Your task to perform on an android device: Open Google Chrome and click the shortcut for Amazon.com Image 0: 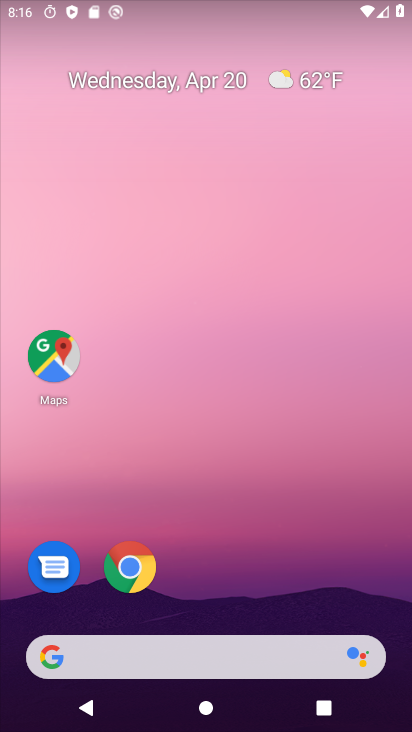
Step 0: click (138, 581)
Your task to perform on an android device: Open Google Chrome and click the shortcut for Amazon.com Image 1: 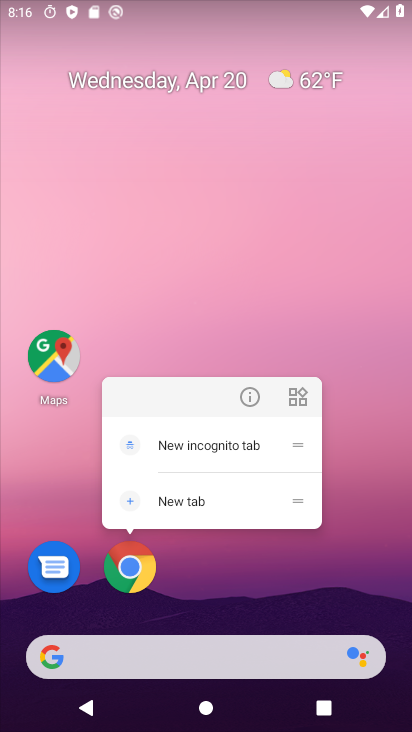
Step 1: click (138, 580)
Your task to perform on an android device: Open Google Chrome and click the shortcut for Amazon.com Image 2: 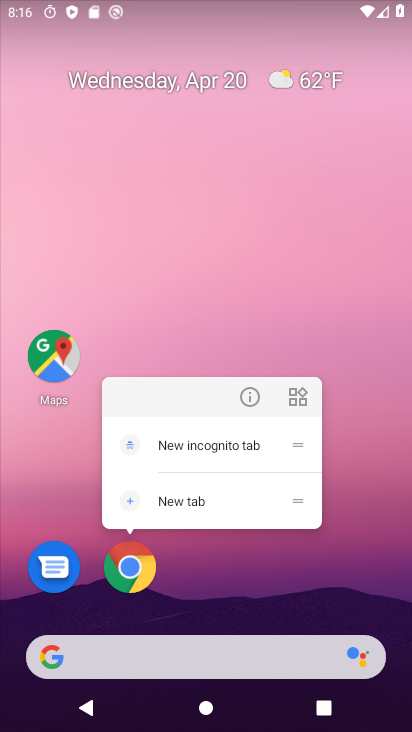
Step 2: click (138, 580)
Your task to perform on an android device: Open Google Chrome and click the shortcut for Amazon.com Image 3: 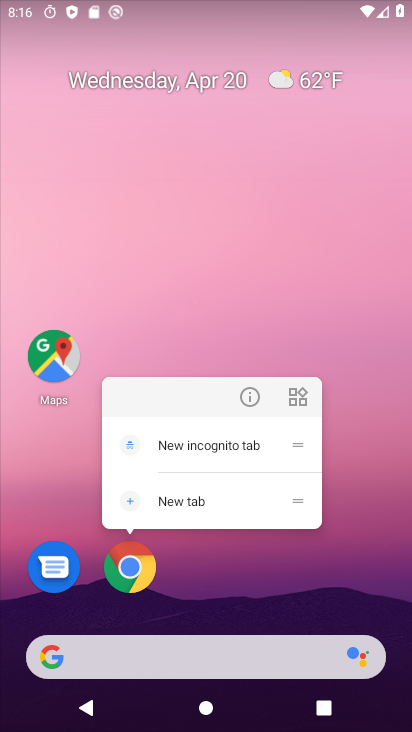
Step 3: click (138, 580)
Your task to perform on an android device: Open Google Chrome and click the shortcut for Amazon.com Image 4: 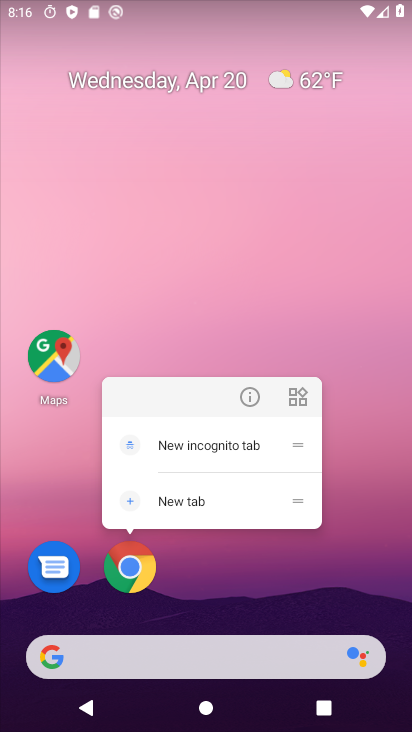
Step 4: click (138, 580)
Your task to perform on an android device: Open Google Chrome and click the shortcut for Amazon.com Image 5: 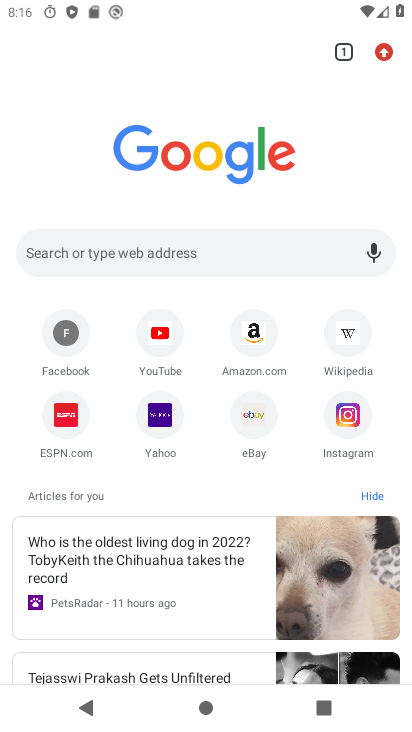
Step 5: click (262, 351)
Your task to perform on an android device: Open Google Chrome and click the shortcut for Amazon.com Image 6: 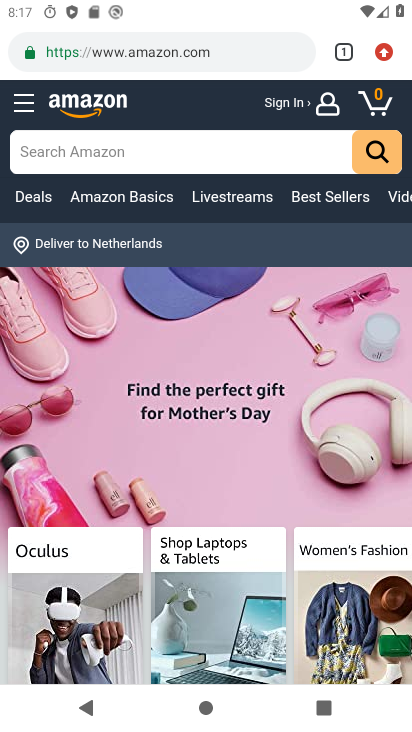
Step 6: task complete